Your task to perform on an android device: Is it going to rain this weekend? Image 0: 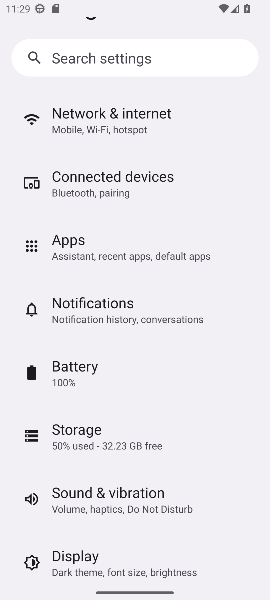
Step 0: press home button
Your task to perform on an android device: Is it going to rain this weekend? Image 1: 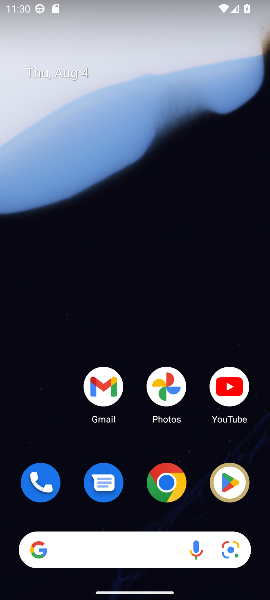
Step 1: drag from (136, 446) to (136, 143)
Your task to perform on an android device: Is it going to rain this weekend? Image 2: 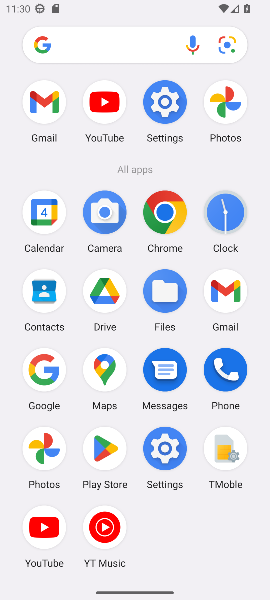
Step 2: click (47, 383)
Your task to perform on an android device: Is it going to rain this weekend? Image 3: 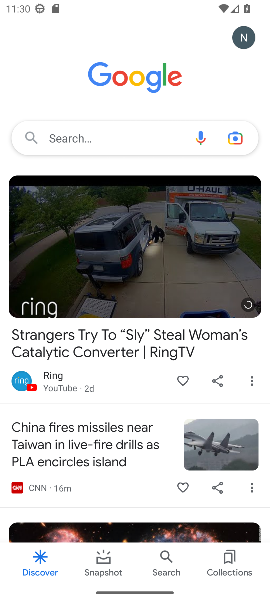
Step 3: click (92, 142)
Your task to perform on an android device: Is it going to rain this weekend? Image 4: 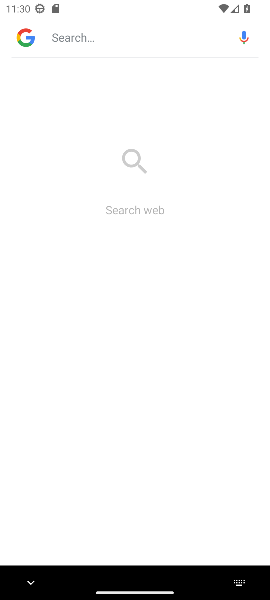
Step 4: click (84, 38)
Your task to perform on an android device: Is it going to rain this weekend? Image 5: 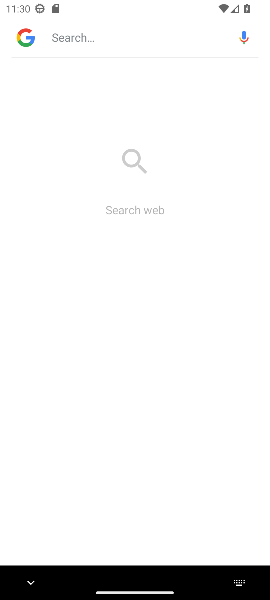
Step 5: type "weather"
Your task to perform on an android device: Is it going to rain this weekend? Image 6: 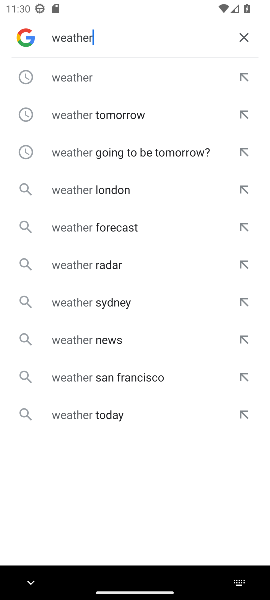
Step 6: click (102, 85)
Your task to perform on an android device: Is it going to rain this weekend? Image 7: 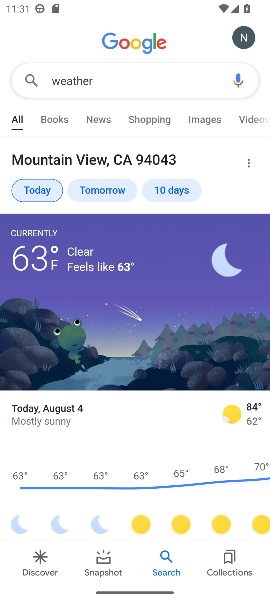
Step 7: click (183, 187)
Your task to perform on an android device: Is it going to rain this weekend? Image 8: 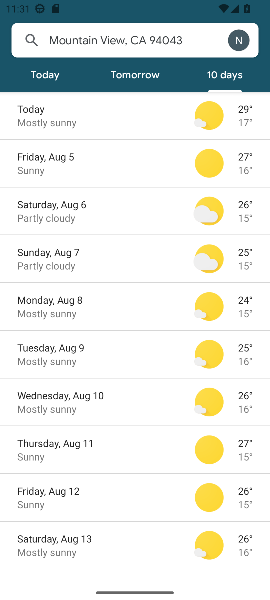
Step 8: task complete